Your task to perform on an android device: make emails show in primary in the gmail app Image 0: 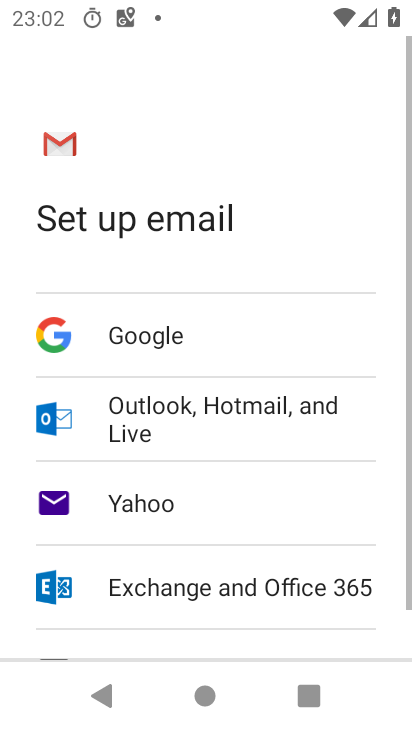
Step 0: press home button
Your task to perform on an android device: make emails show in primary in the gmail app Image 1: 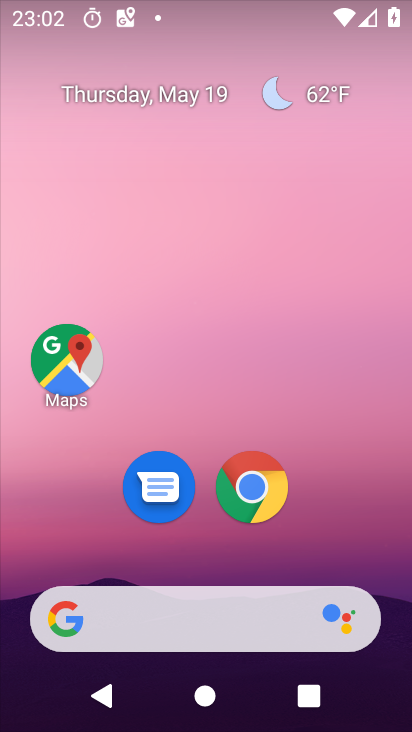
Step 1: drag from (330, 540) to (243, 152)
Your task to perform on an android device: make emails show in primary in the gmail app Image 2: 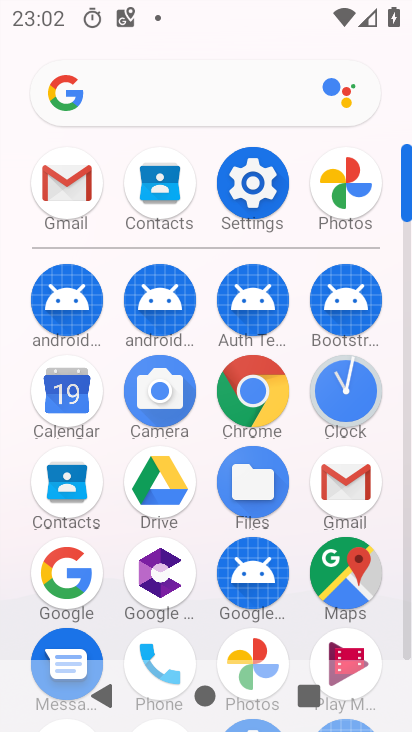
Step 2: click (70, 182)
Your task to perform on an android device: make emails show in primary in the gmail app Image 3: 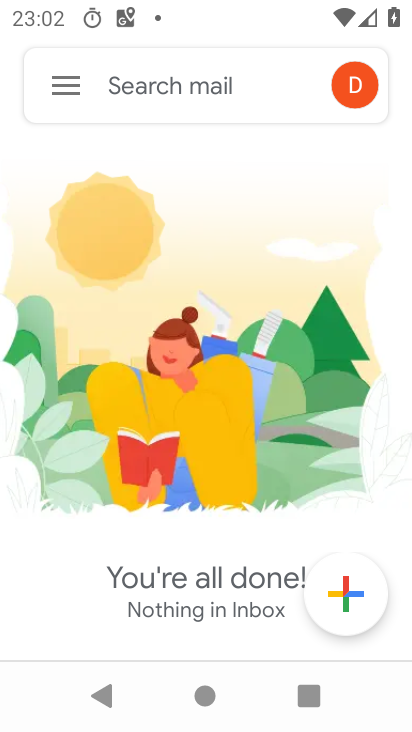
Step 3: click (76, 84)
Your task to perform on an android device: make emails show in primary in the gmail app Image 4: 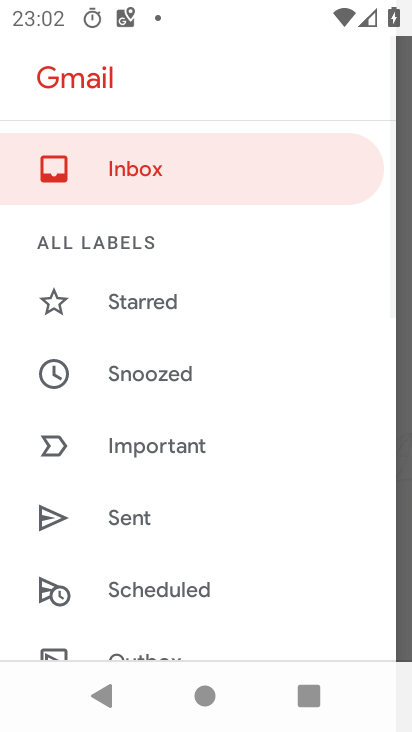
Step 4: drag from (268, 622) to (226, 266)
Your task to perform on an android device: make emails show in primary in the gmail app Image 5: 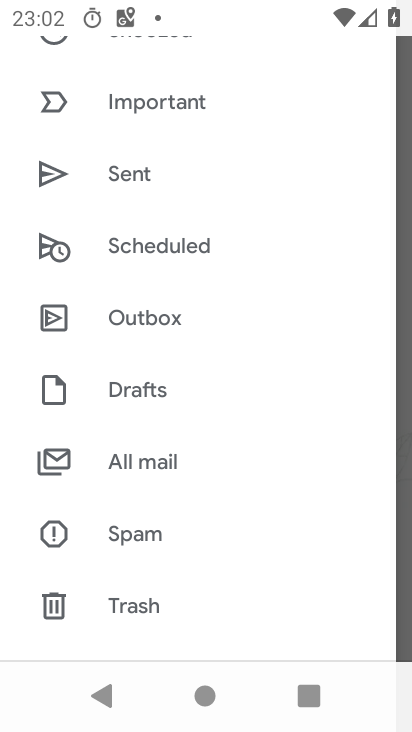
Step 5: drag from (220, 624) to (209, 272)
Your task to perform on an android device: make emails show in primary in the gmail app Image 6: 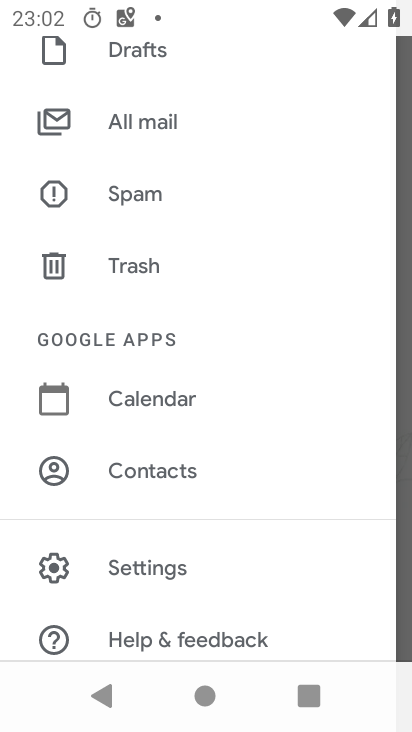
Step 6: click (165, 572)
Your task to perform on an android device: make emails show in primary in the gmail app Image 7: 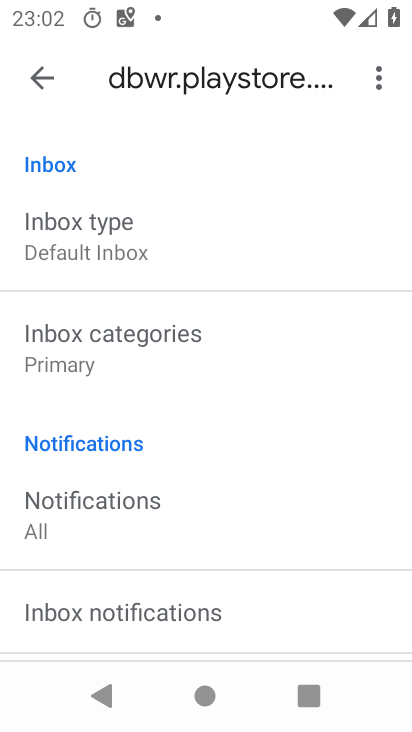
Step 7: task complete